Your task to perform on an android device: open chrome and create a bookmark for the current page Image 0: 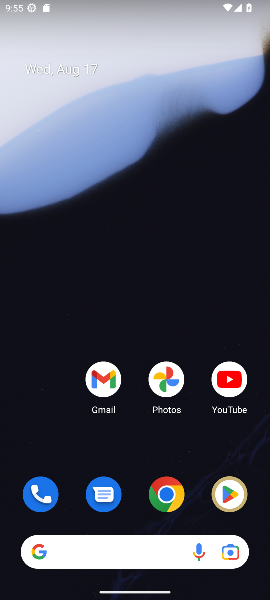
Step 0: click (164, 498)
Your task to perform on an android device: open chrome and create a bookmark for the current page Image 1: 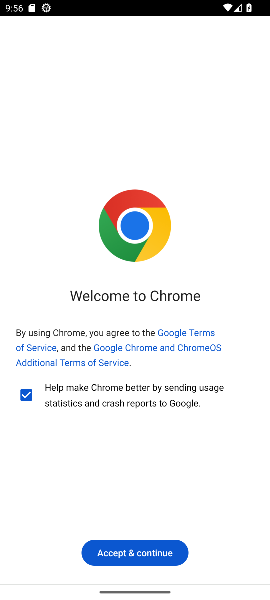
Step 1: click (153, 557)
Your task to perform on an android device: open chrome and create a bookmark for the current page Image 2: 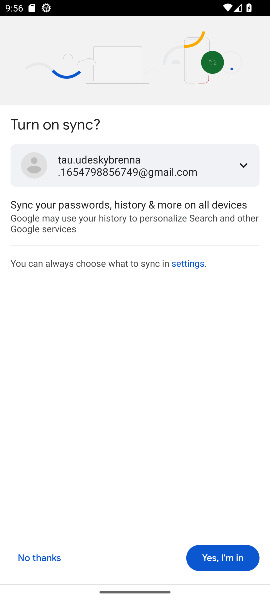
Step 2: click (227, 552)
Your task to perform on an android device: open chrome and create a bookmark for the current page Image 3: 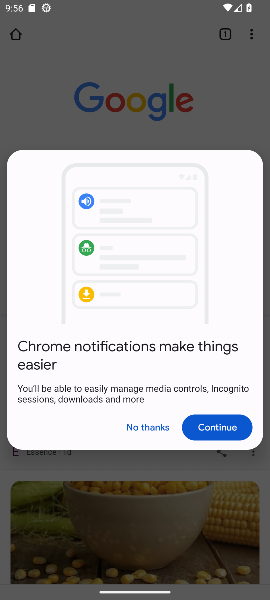
Step 3: click (148, 426)
Your task to perform on an android device: open chrome and create a bookmark for the current page Image 4: 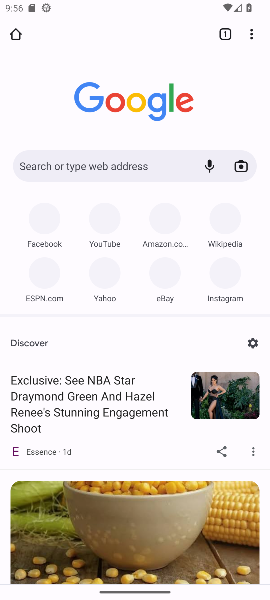
Step 4: task complete